Your task to perform on an android device: Open the calendar and show me this week's events? Image 0: 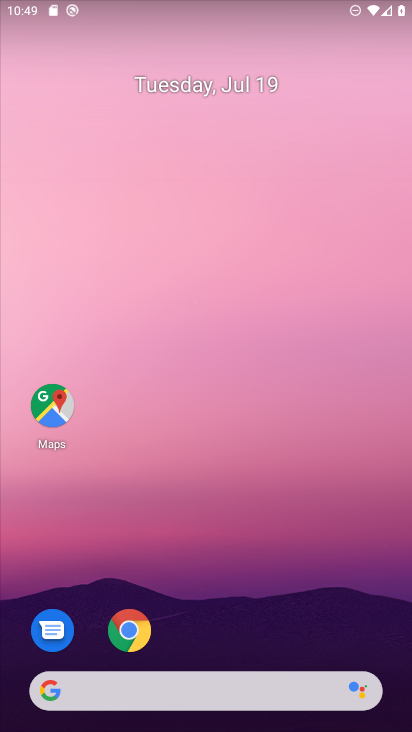
Step 0: drag from (98, 703) to (129, 169)
Your task to perform on an android device: Open the calendar and show me this week's events? Image 1: 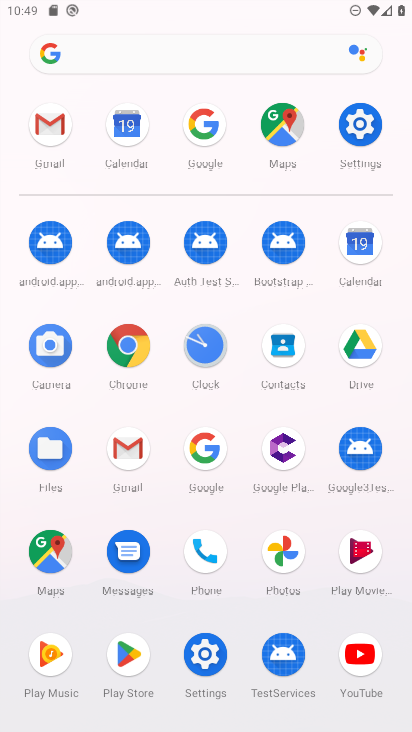
Step 1: click (361, 242)
Your task to perform on an android device: Open the calendar and show me this week's events? Image 2: 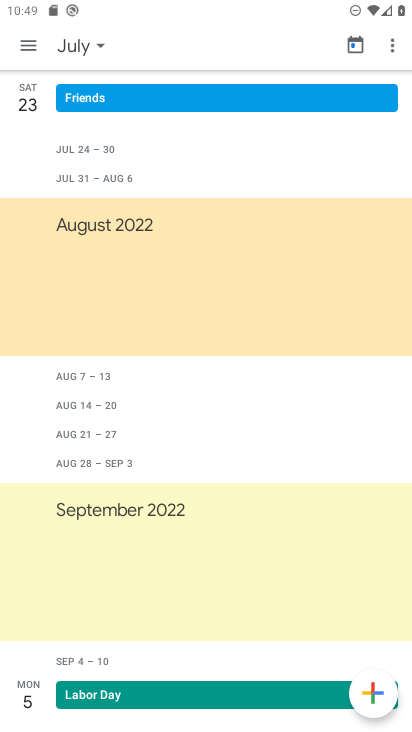
Step 2: click (356, 45)
Your task to perform on an android device: Open the calendar and show me this week's events? Image 3: 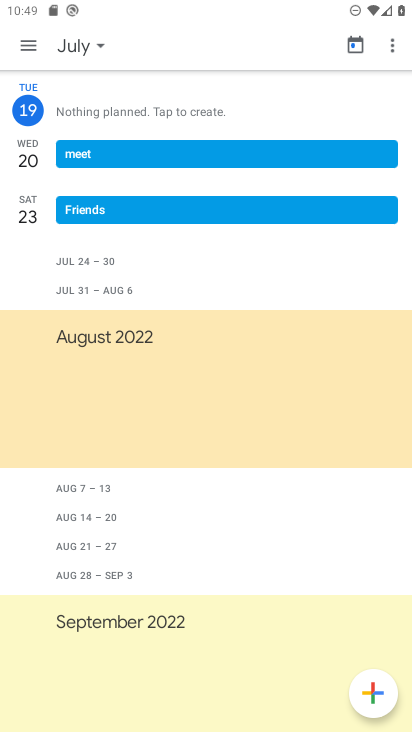
Step 3: task complete